Your task to perform on an android device: check google app version Image 0: 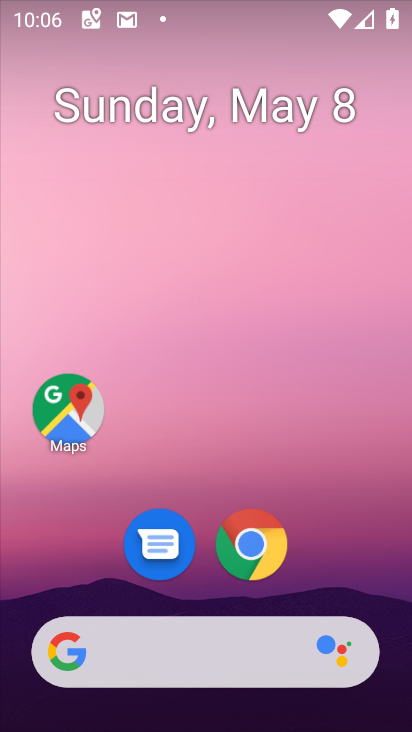
Step 0: click (283, 553)
Your task to perform on an android device: check google app version Image 1: 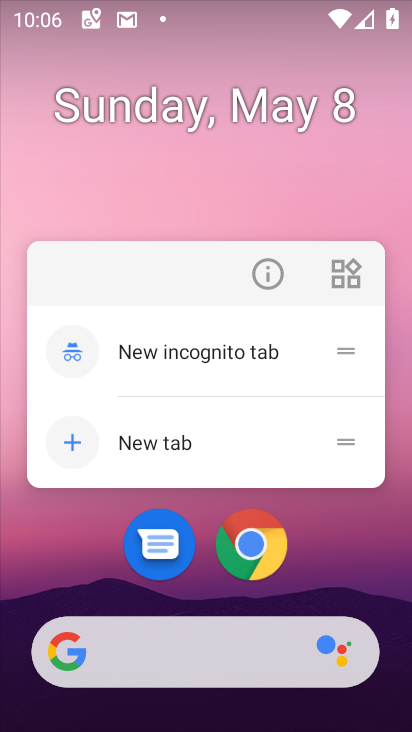
Step 1: click (266, 256)
Your task to perform on an android device: check google app version Image 2: 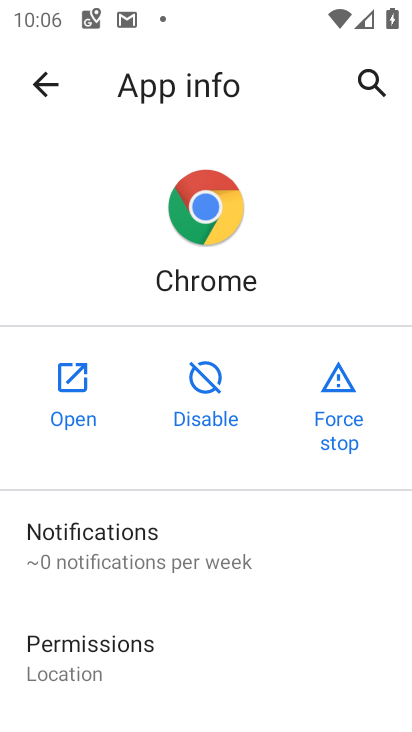
Step 2: task complete